Your task to perform on an android device: toggle notification dots Image 0: 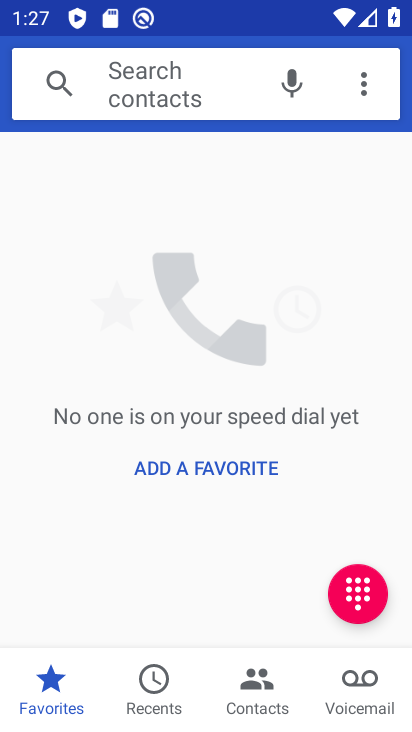
Step 0: press home button
Your task to perform on an android device: toggle notification dots Image 1: 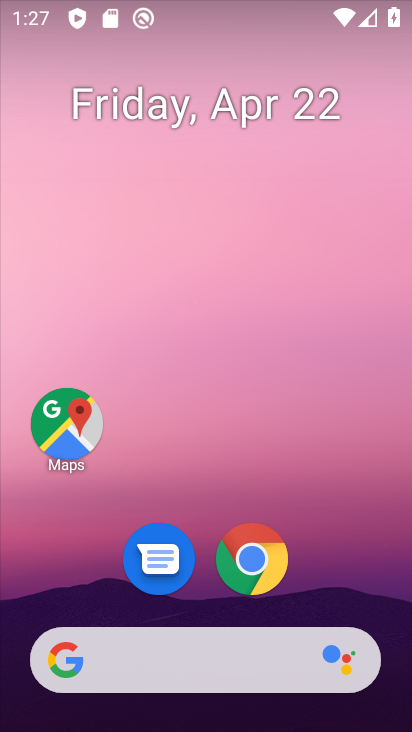
Step 1: drag from (339, 568) to (281, 282)
Your task to perform on an android device: toggle notification dots Image 2: 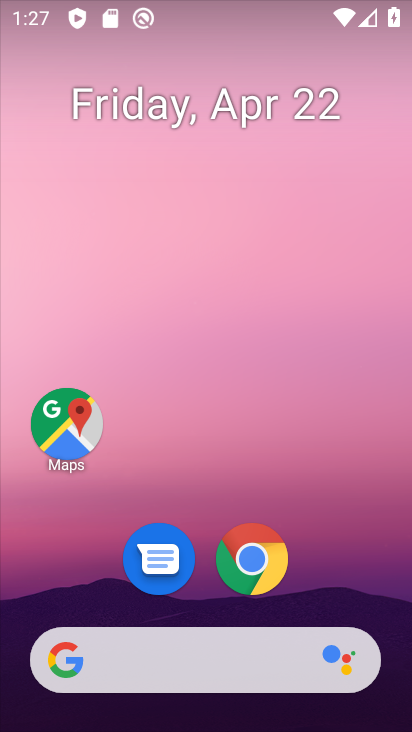
Step 2: drag from (361, 425) to (317, 4)
Your task to perform on an android device: toggle notification dots Image 3: 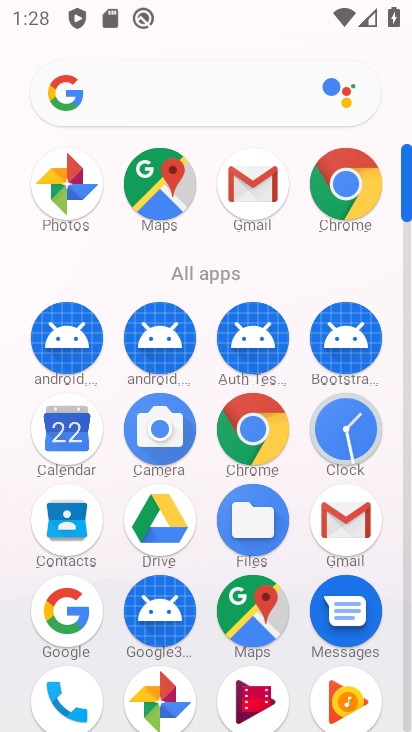
Step 3: click (401, 443)
Your task to perform on an android device: toggle notification dots Image 4: 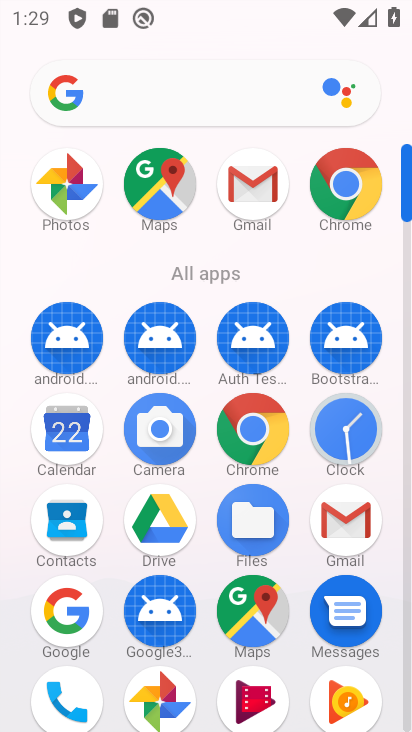
Step 4: drag from (406, 163) to (397, 330)
Your task to perform on an android device: toggle notification dots Image 5: 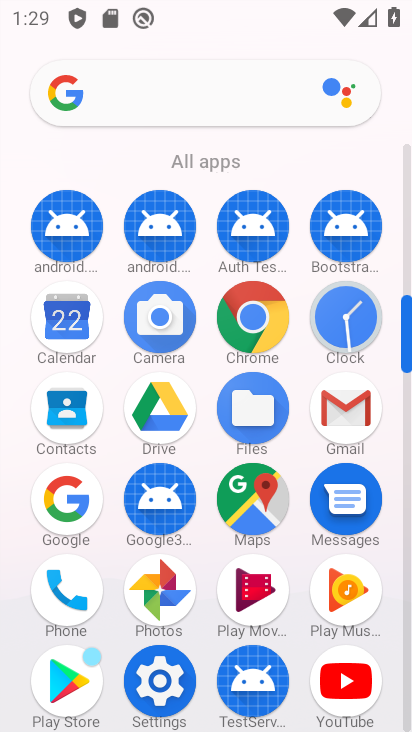
Step 5: click (152, 661)
Your task to perform on an android device: toggle notification dots Image 6: 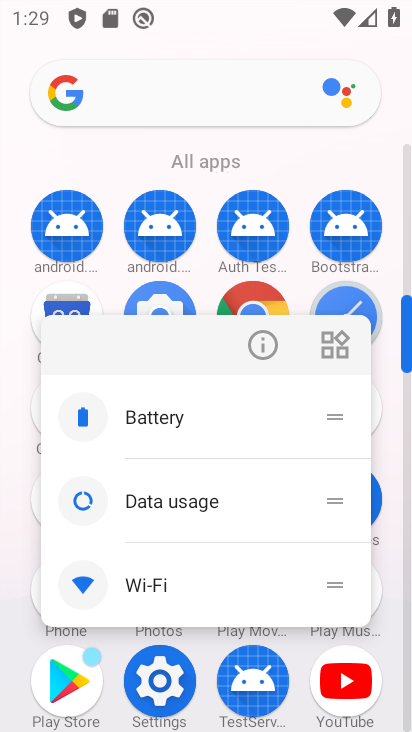
Step 6: click (176, 677)
Your task to perform on an android device: toggle notification dots Image 7: 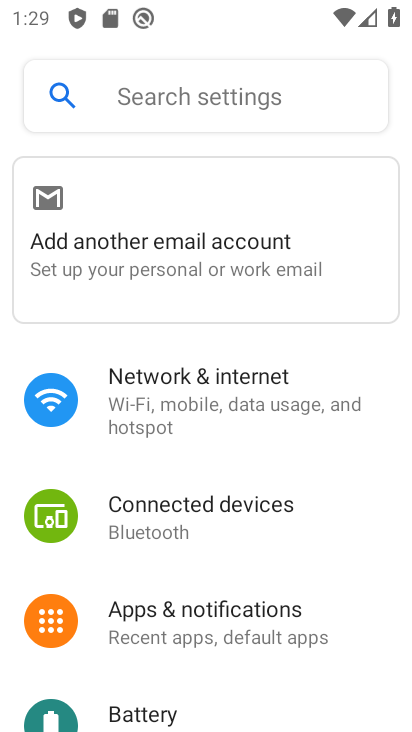
Step 7: drag from (155, 691) to (154, 315)
Your task to perform on an android device: toggle notification dots Image 8: 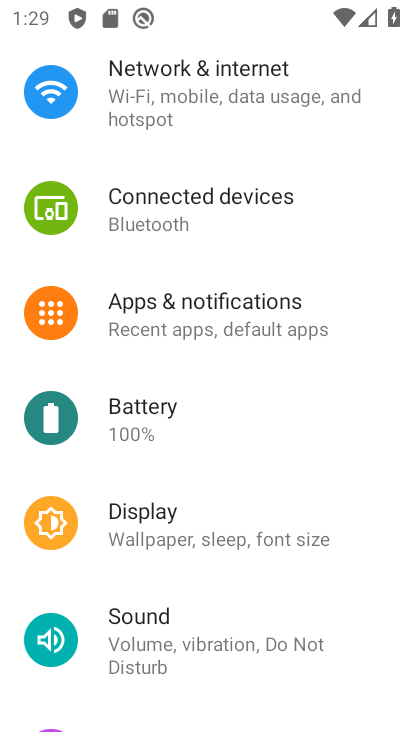
Step 8: click (230, 309)
Your task to perform on an android device: toggle notification dots Image 9: 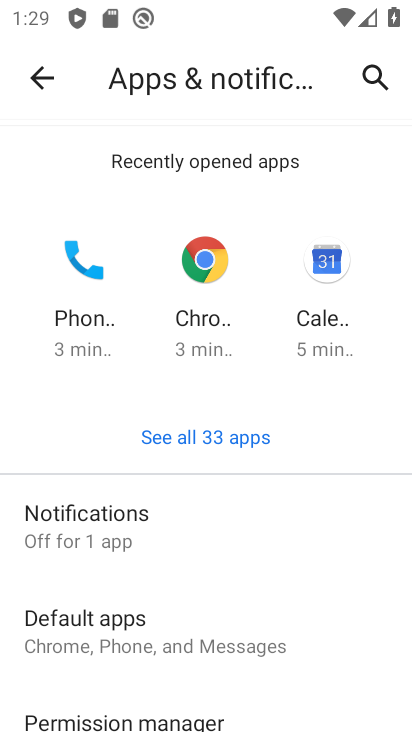
Step 9: drag from (273, 636) to (237, 85)
Your task to perform on an android device: toggle notification dots Image 10: 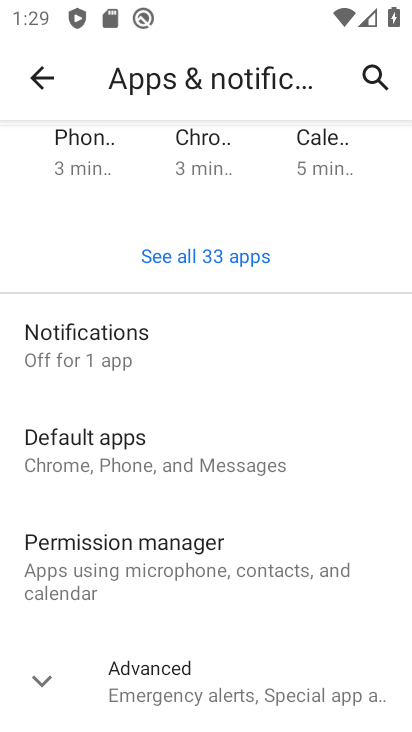
Step 10: click (189, 685)
Your task to perform on an android device: toggle notification dots Image 11: 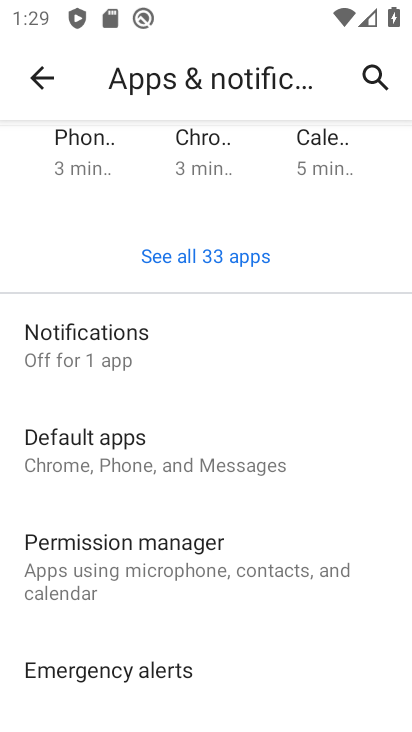
Step 11: drag from (296, 633) to (226, 190)
Your task to perform on an android device: toggle notification dots Image 12: 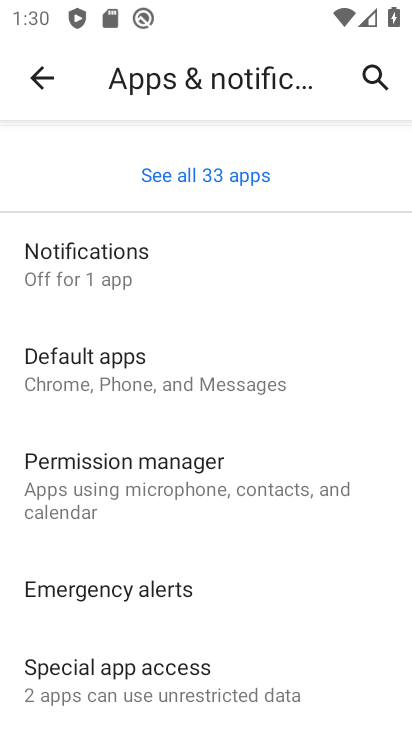
Step 12: drag from (226, 580) to (213, 81)
Your task to perform on an android device: toggle notification dots Image 13: 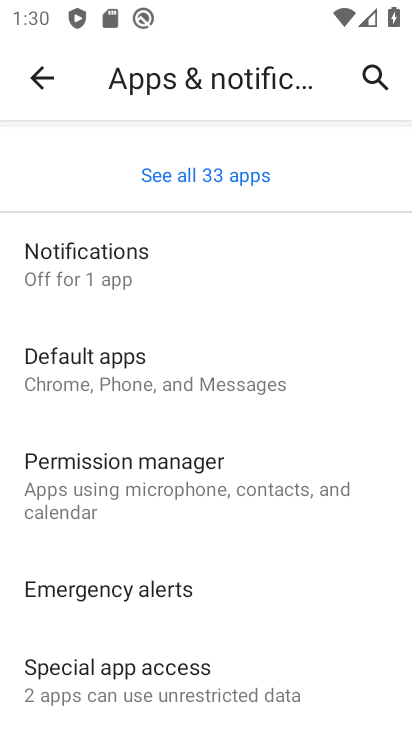
Step 13: click (204, 277)
Your task to perform on an android device: toggle notification dots Image 14: 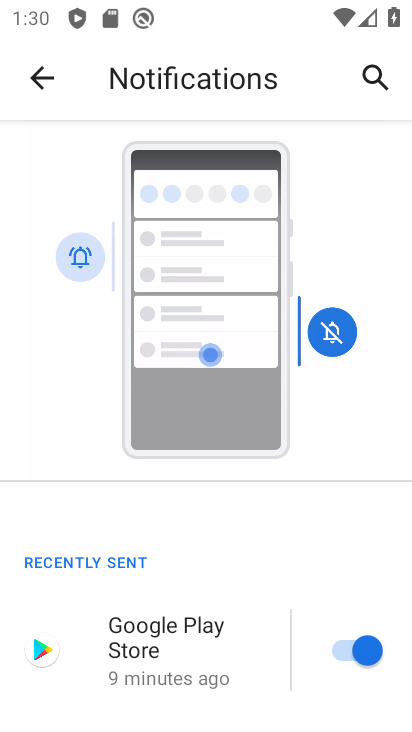
Step 14: drag from (285, 507) to (197, 77)
Your task to perform on an android device: toggle notification dots Image 15: 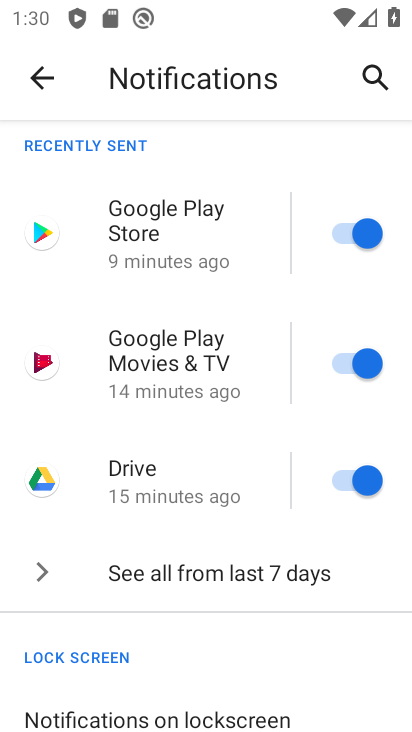
Step 15: drag from (220, 634) to (85, 75)
Your task to perform on an android device: toggle notification dots Image 16: 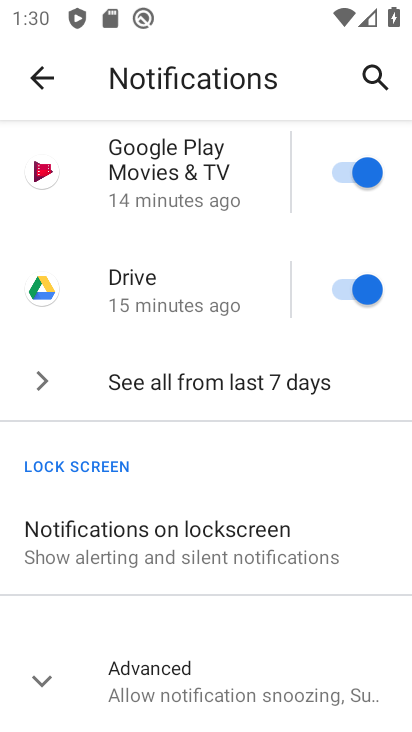
Step 16: click (214, 700)
Your task to perform on an android device: toggle notification dots Image 17: 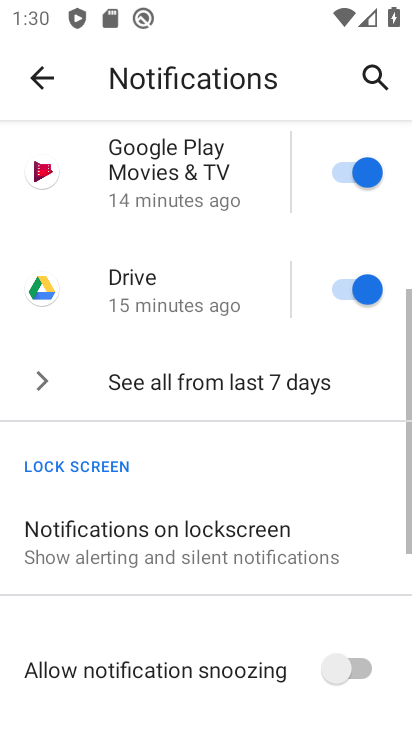
Step 17: drag from (295, 668) to (280, 271)
Your task to perform on an android device: toggle notification dots Image 18: 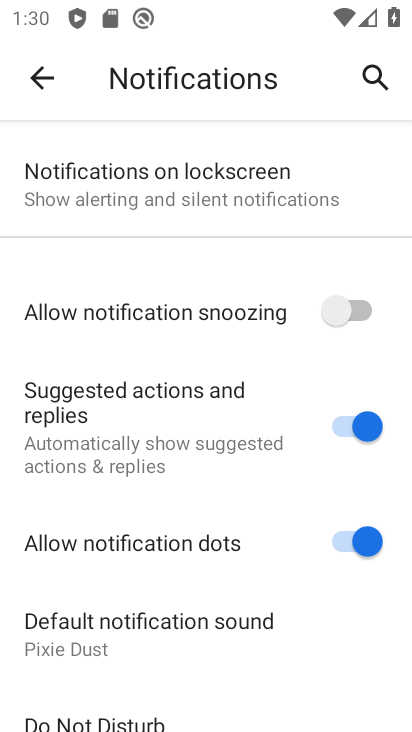
Step 18: click (261, 542)
Your task to perform on an android device: toggle notification dots Image 19: 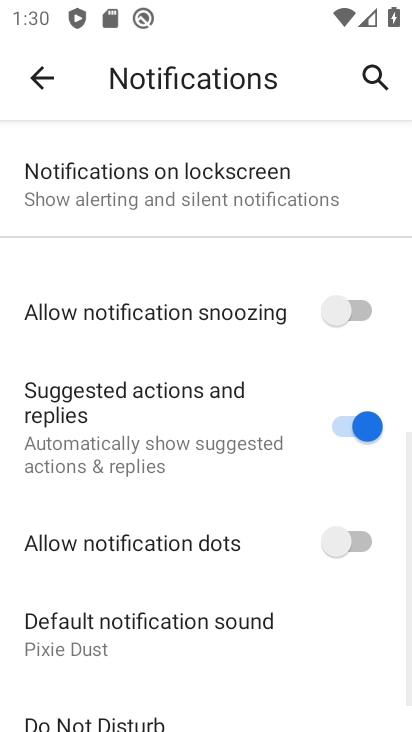
Step 19: task complete